Your task to perform on an android device: Go to network settings Image 0: 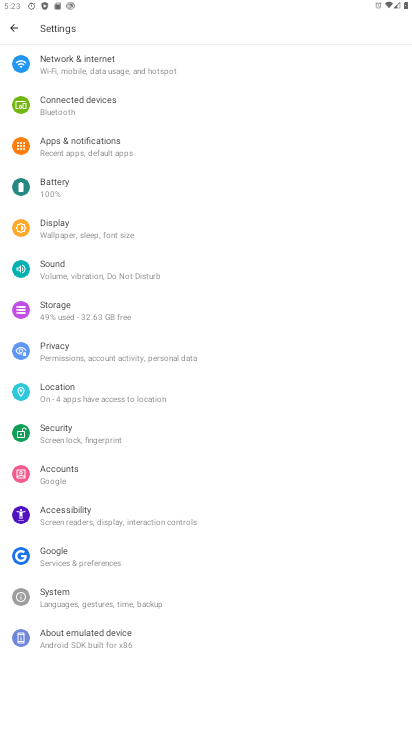
Step 0: press home button
Your task to perform on an android device: Go to network settings Image 1: 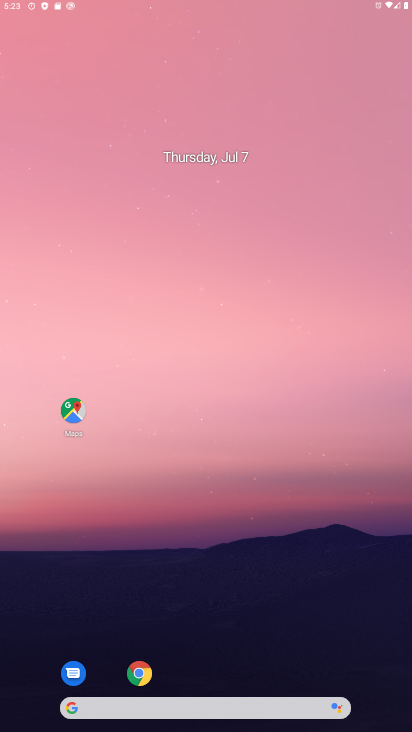
Step 1: drag from (258, 673) to (217, 17)
Your task to perform on an android device: Go to network settings Image 2: 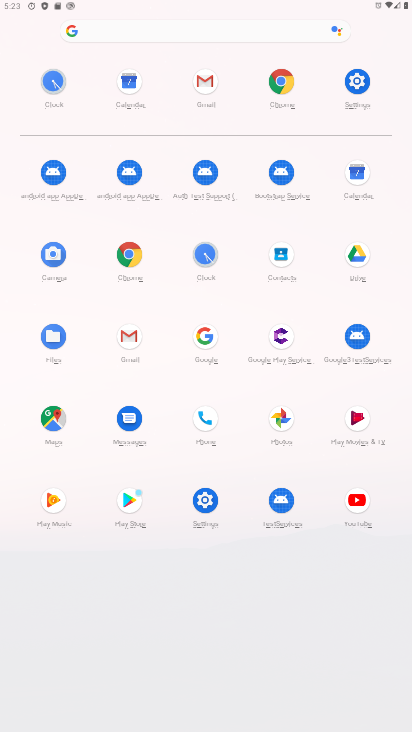
Step 2: click (364, 77)
Your task to perform on an android device: Go to network settings Image 3: 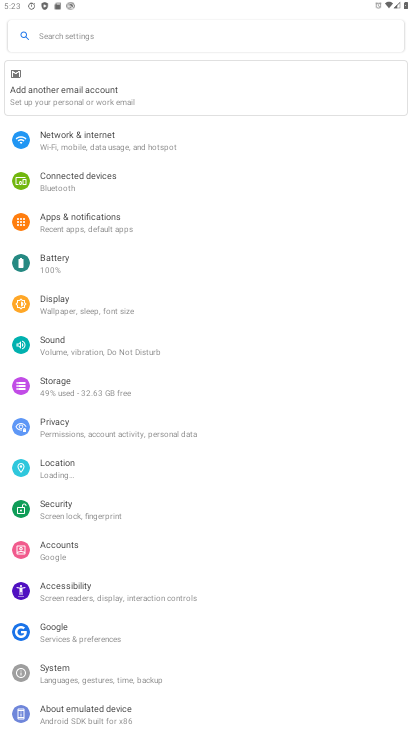
Step 3: click (85, 144)
Your task to perform on an android device: Go to network settings Image 4: 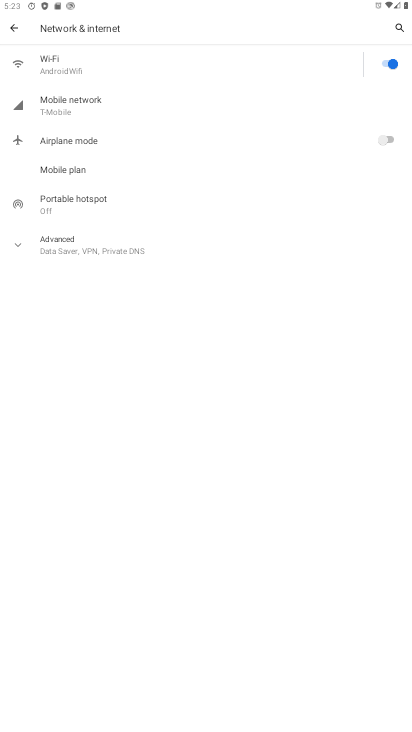
Step 4: task complete